Your task to perform on an android device: change keyboard looks Image 0: 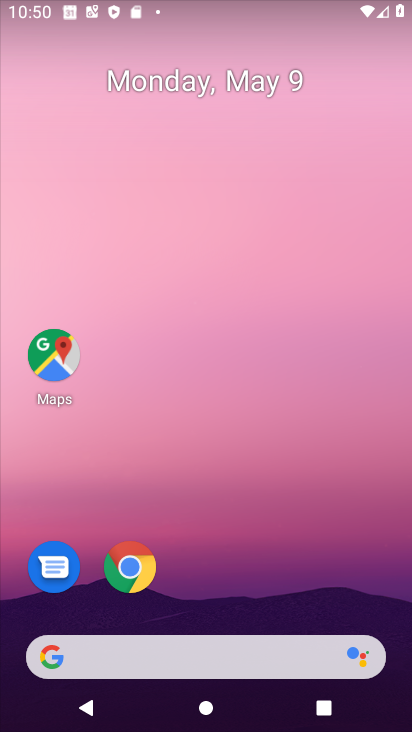
Step 0: drag from (196, 653) to (262, 297)
Your task to perform on an android device: change keyboard looks Image 1: 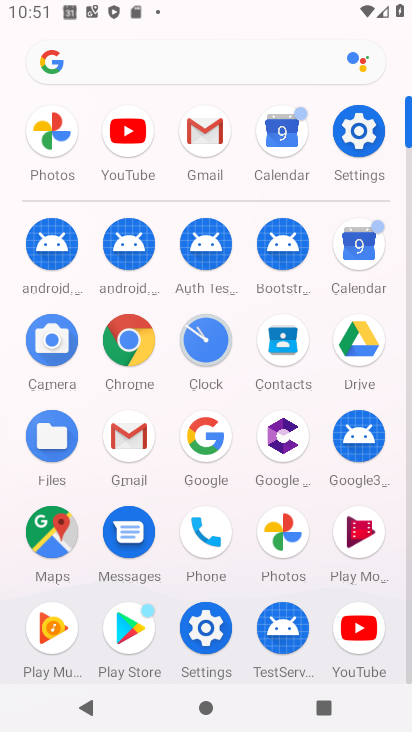
Step 1: click (215, 630)
Your task to perform on an android device: change keyboard looks Image 2: 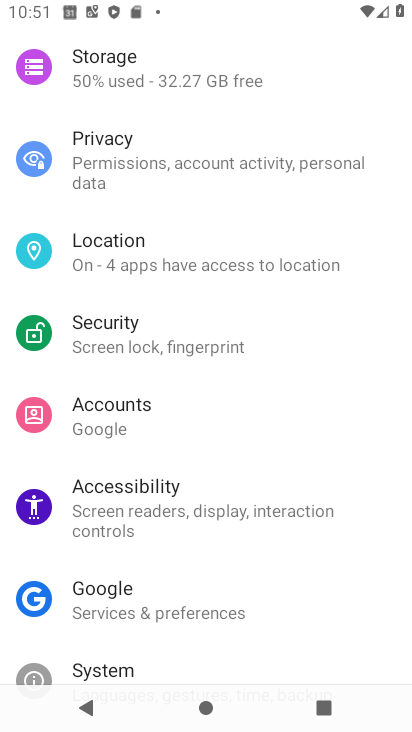
Step 2: click (131, 667)
Your task to perform on an android device: change keyboard looks Image 3: 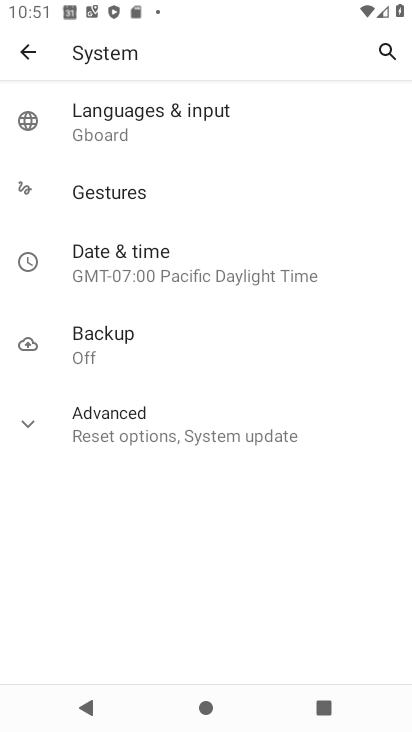
Step 3: click (134, 124)
Your task to perform on an android device: change keyboard looks Image 4: 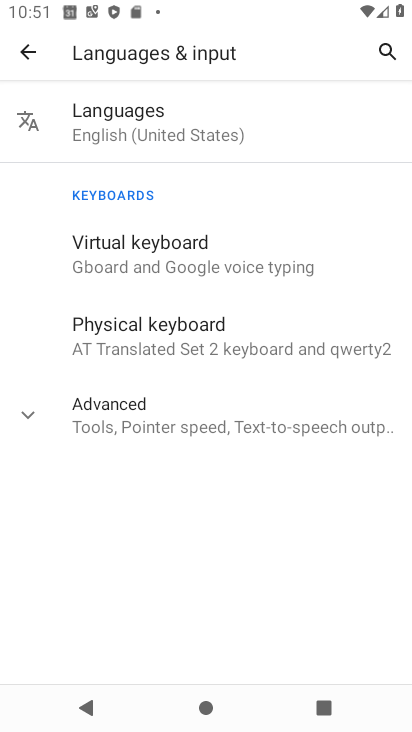
Step 4: click (130, 269)
Your task to perform on an android device: change keyboard looks Image 5: 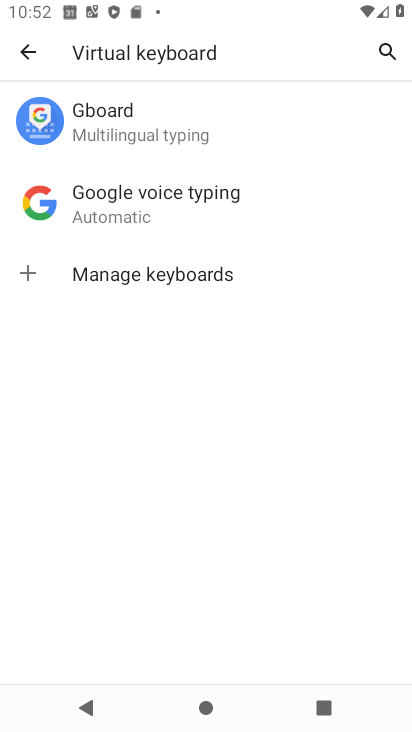
Step 5: click (128, 141)
Your task to perform on an android device: change keyboard looks Image 6: 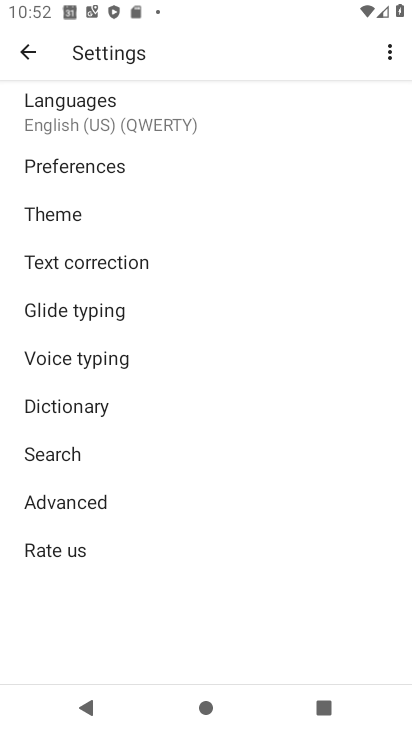
Step 6: click (51, 218)
Your task to perform on an android device: change keyboard looks Image 7: 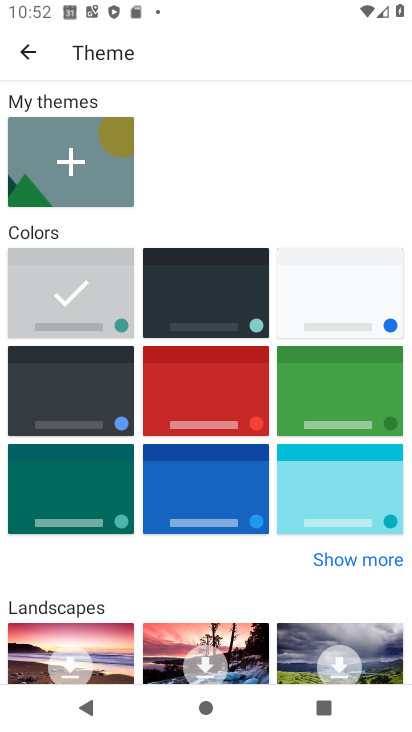
Step 7: click (68, 377)
Your task to perform on an android device: change keyboard looks Image 8: 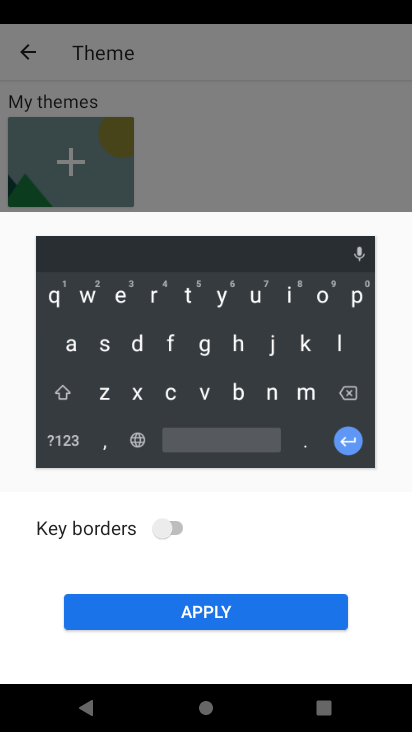
Step 8: click (263, 611)
Your task to perform on an android device: change keyboard looks Image 9: 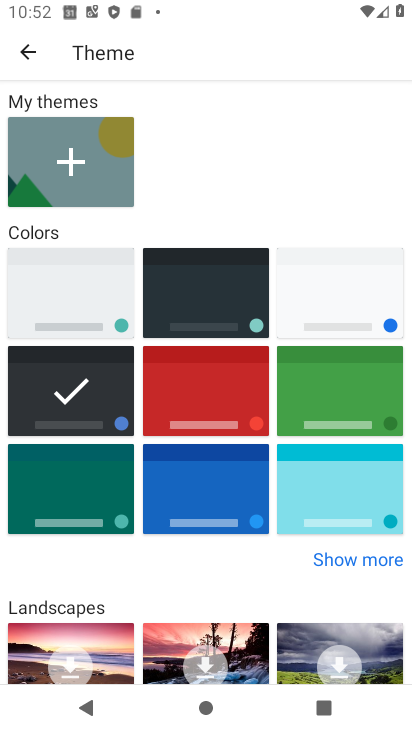
Step 9: task complete